Your task to perform on an android device: toggle wifi Image 0: 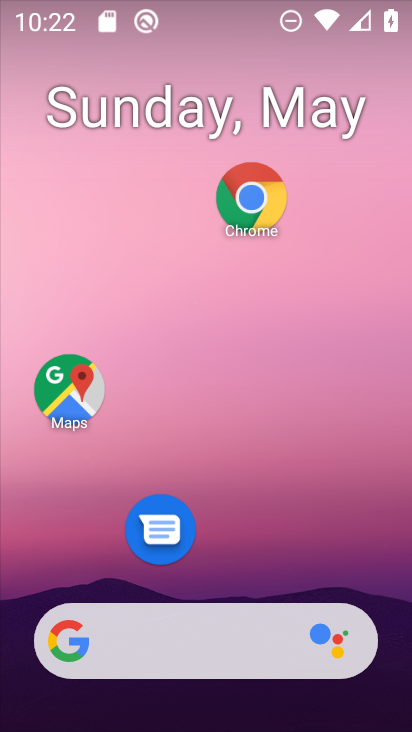
Step 0: drag from (277, 550) to (276, 78)
Your task to perform on an android device: toggle wifi Image 1: 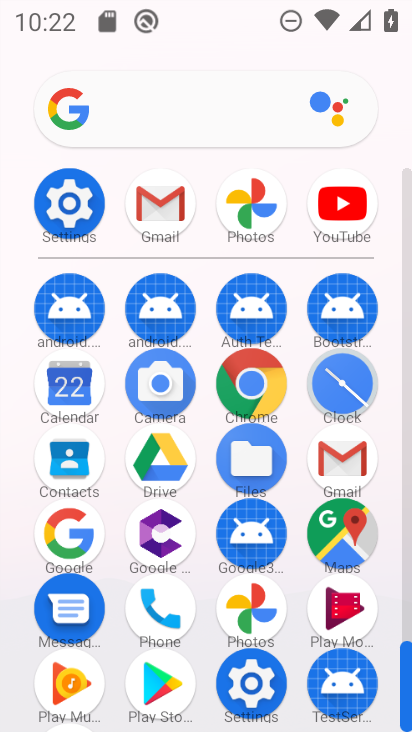
Step 1: click (63, 201)
Your task to perform on an android device: toggle wifi Image 2: 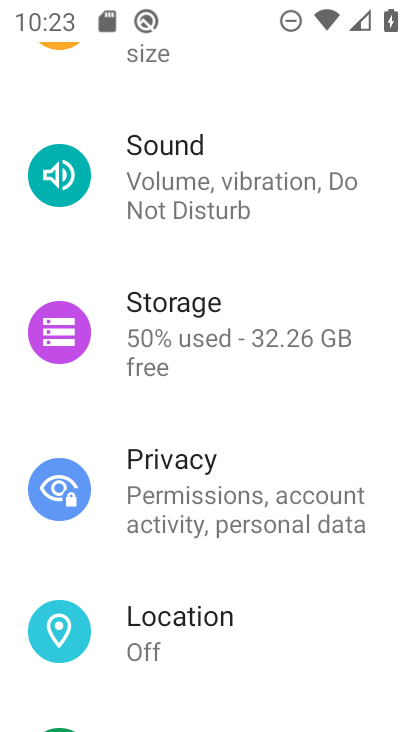
Step 2: drag from (238, 189) to (304, 603)
Your task to perform on an android device: toggle wifi Image 3: 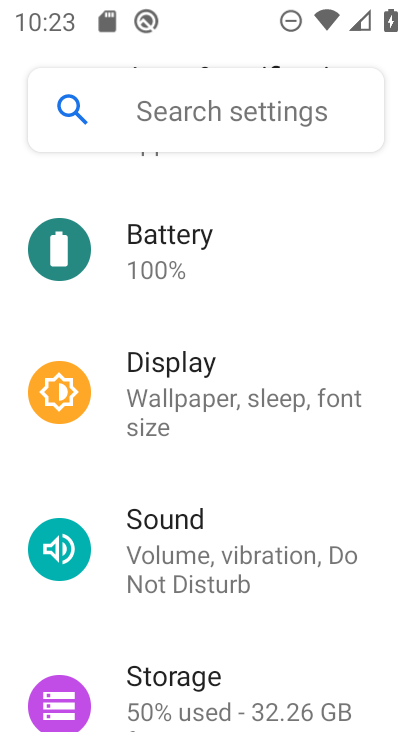
Step 3: drag from (323, 373) to (307, 607)
Your task to perform on an android device: toggle wifi Image 4: 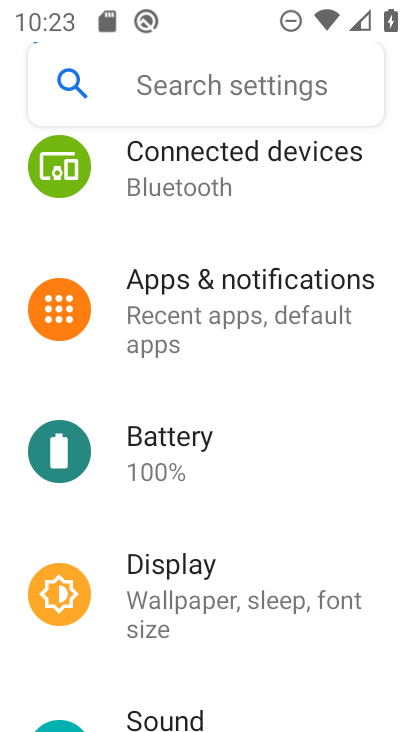
Step 4: drag from (262, 315) to (256, 666)
Your task to perform on an android device: toggle wifi Image 5: 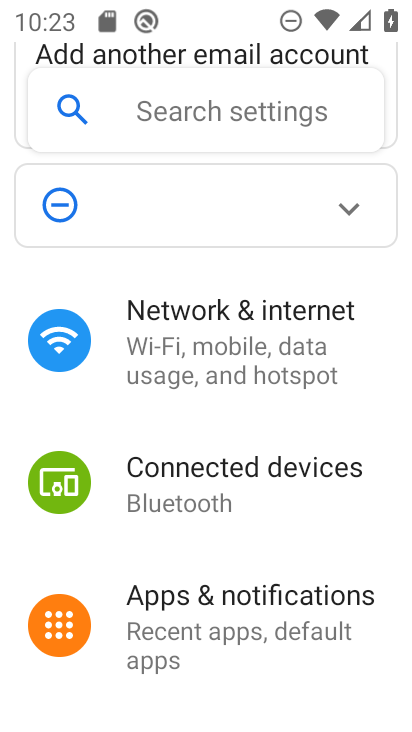
Step 5: click (213, 364)
Your task to perform on an android device: toggle wifi Image 6: 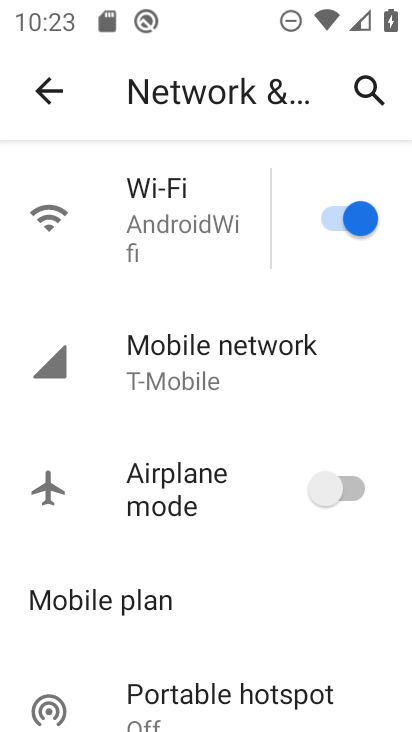
Step 6: click (340, 225)
Your task to perform on an android device: toggle wifi Image 7: 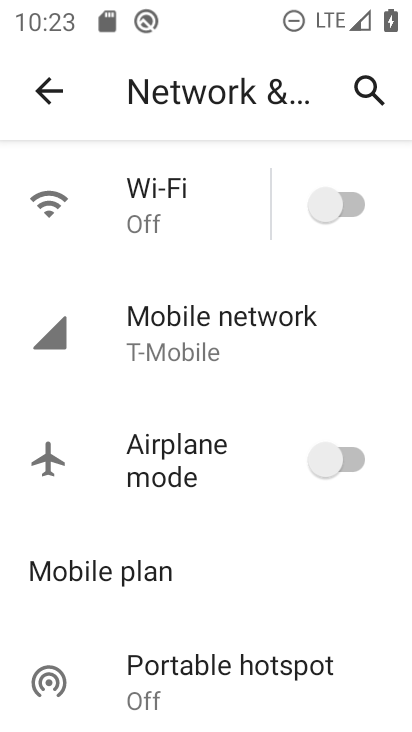
Step 7: task complete